Your task to perform on an android device: toggle data saver in the chrome app Image 0: 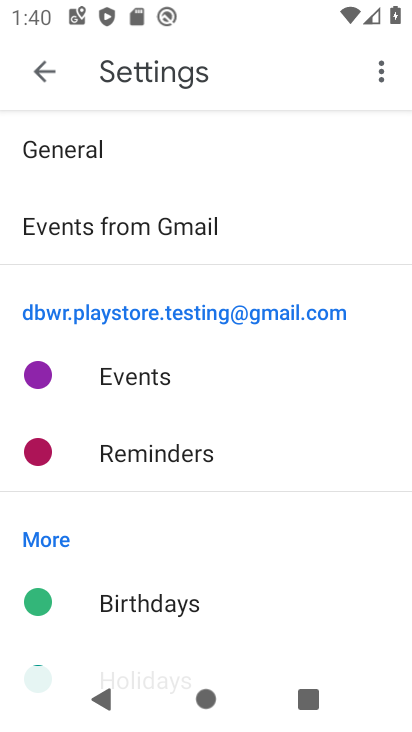
Step 0: press home button
Your task to perform on an android device: toggle data saver in the chrome app Image 1: 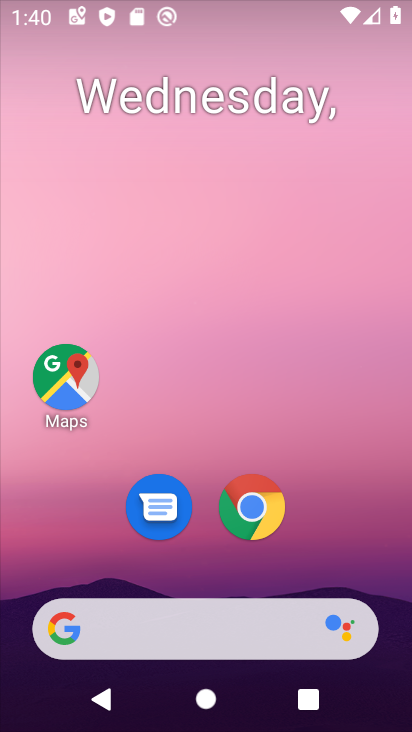
Step 1: drag from (371, 550) to (336, 167)
Your task to perform on an android device: toggle data saver in the chrome app Image 2: 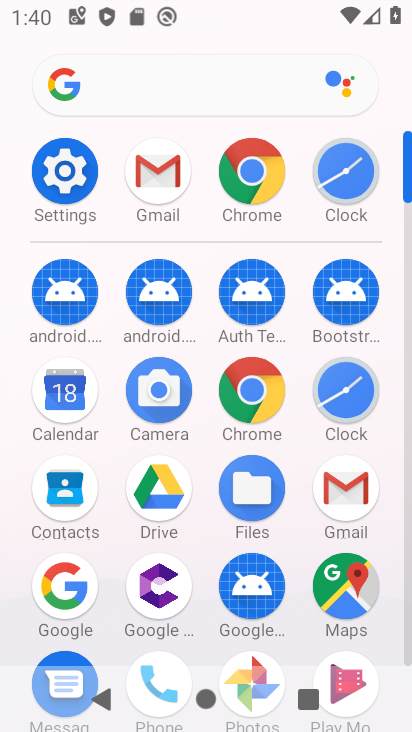
Step 2: click (249, 392)
Your task to perform on an android device: toggle data saver in the chrome app Image 3: 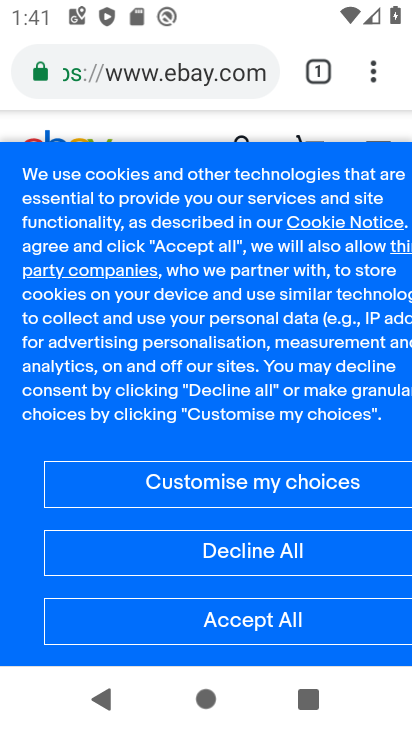
Step 3: drag from (390, 79) to (161, 489)
Your task to perform on an android device: toggle data saver in the chrome app Image 4: 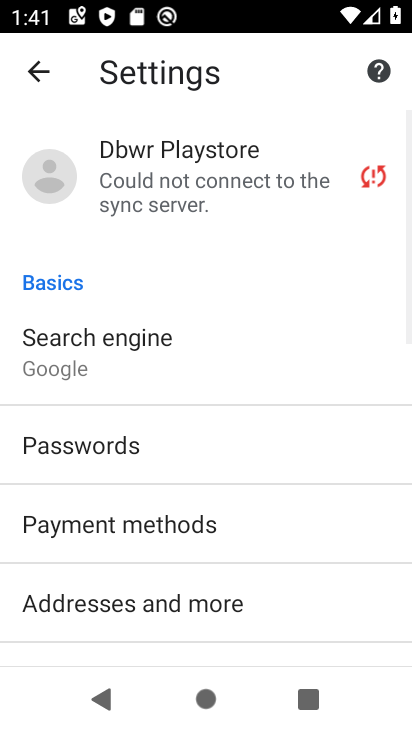
Step 4: drag from (179, 522) to (196, 323)
Your task to perform on an android device: toggle data saver in the chrome app Image 5: 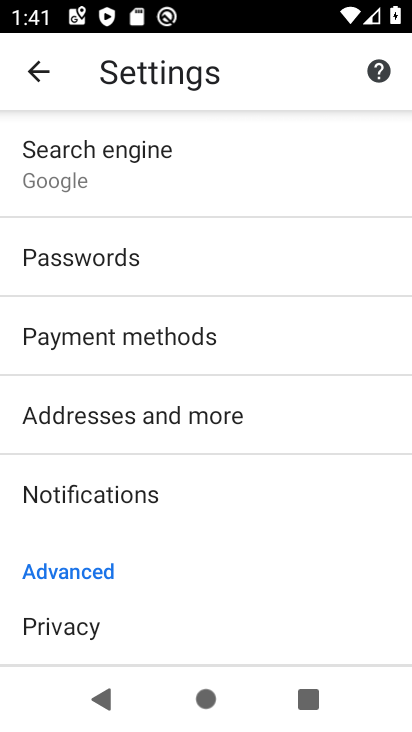
Step 5: drag from (186, 554) to (218, 260)
Your task to perform on an android device: toggle data saver in the chrome app Image 6: 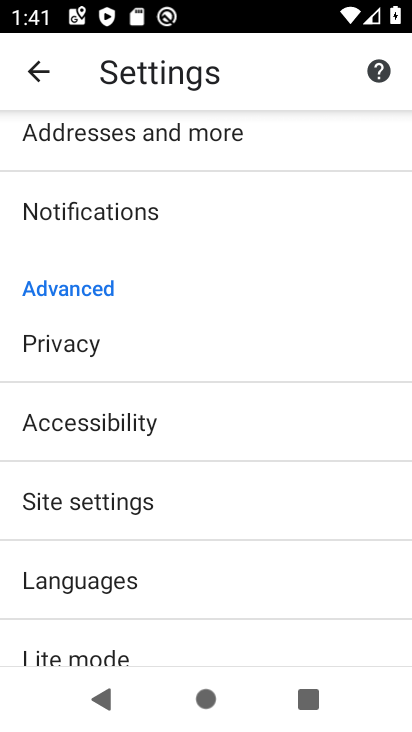
Step 6: drag from (204, 537) to (240, 255)
Your task to perform on an android device: toggle data saver in the chrome app Image 7: 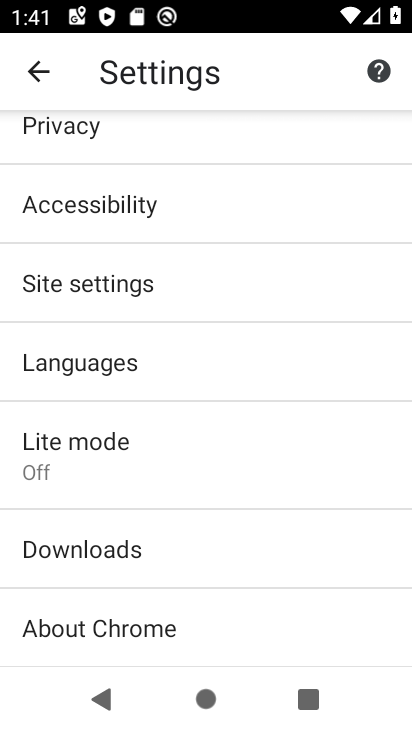
Step 7: click (149, 463)
Your task to perform on an android device: toggle data saver in the chrome app Image 8: 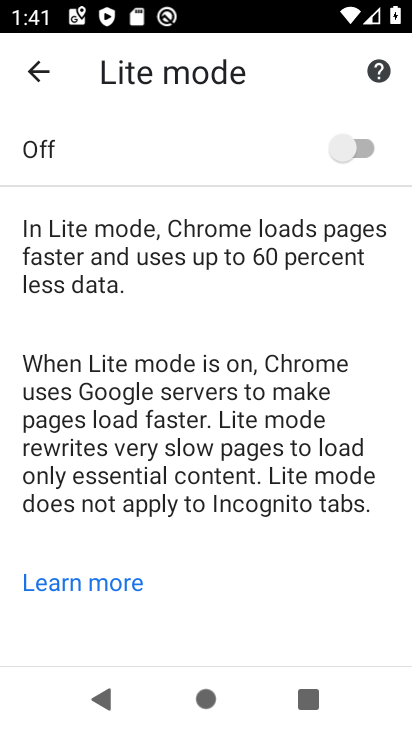
Step 8: click (369, 142)
Your task to perform on an android device: toggle data saver in the chrome app Image 9: 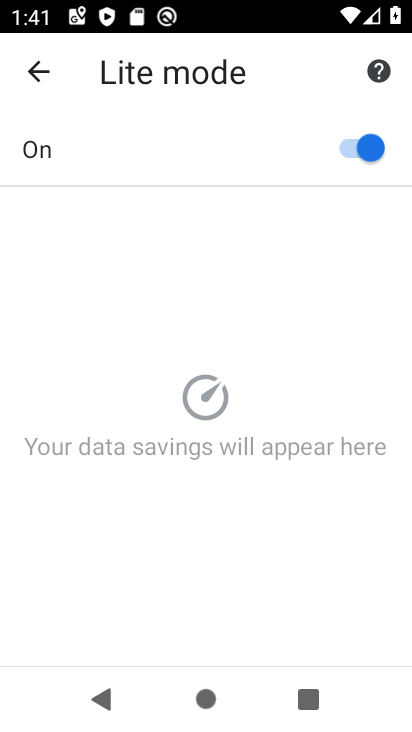
Step 9: task complete